Your task to perform on an android device: toggle data saver in the chrome app Image 0: 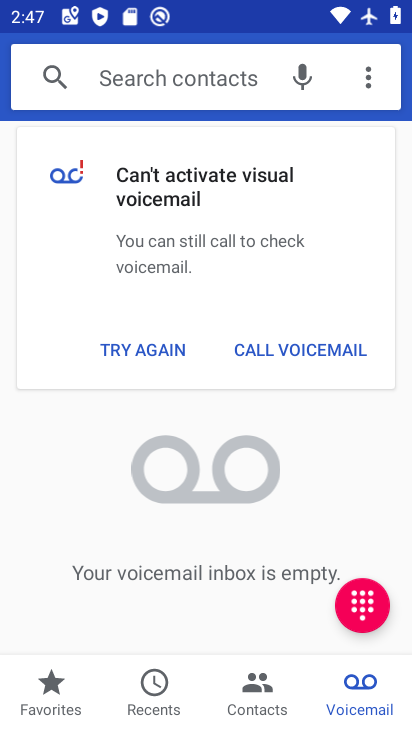
Step 0: press home button
Your task to perform on an android device: toggle data saver in the chrome app Image 1: 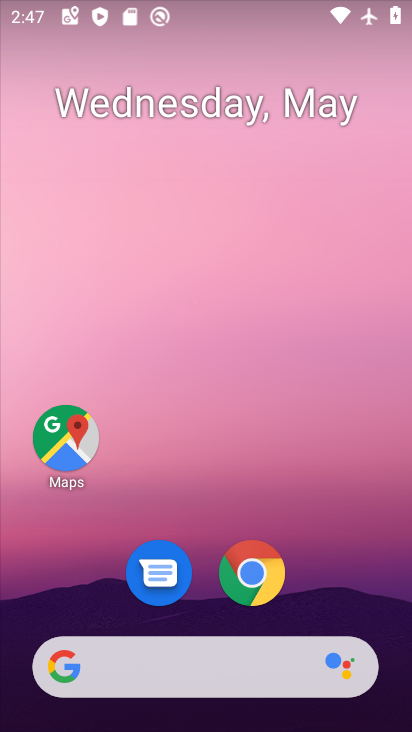
Step 1: click (242, 579)
Your task to perform on an android device: toggle data saver in the chrome app Image 2: 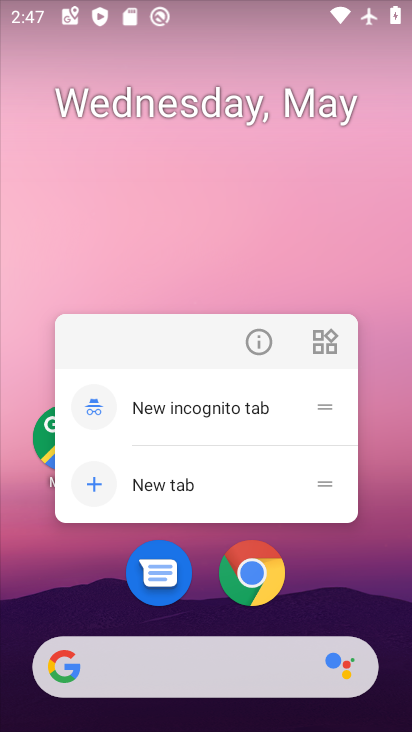
Step 2: click (248, 567)
Your task to perform on an android device: toggle data saver in the chrome app Image 3: 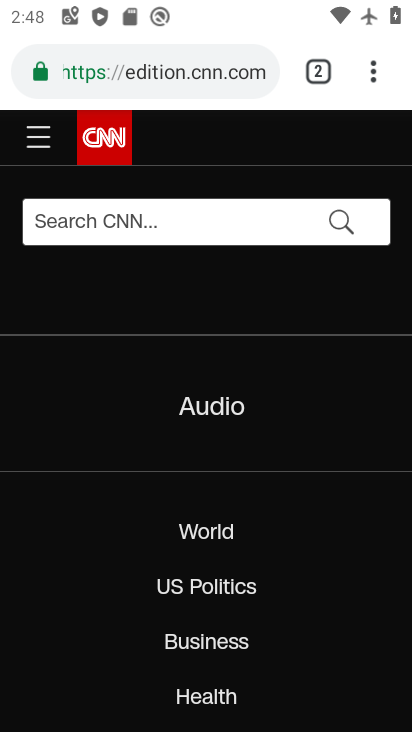
Step 3: click (379, 64)
Your task to perform on an android device: toggle data saver in the chrome app Image 4: 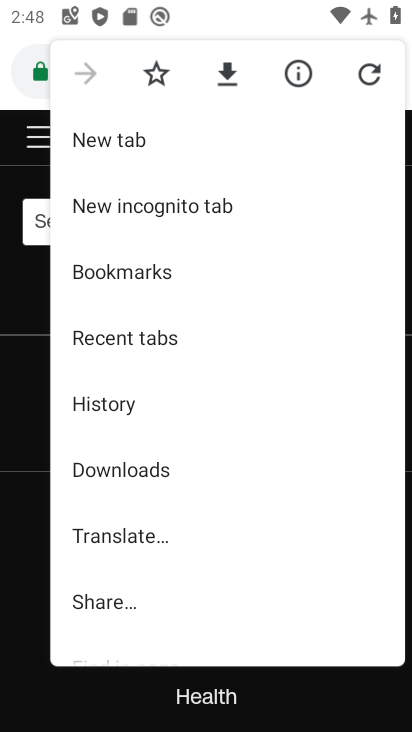
Step 4: drag from (222, 602) to (212, 200)
Your task to perform on an android device: toggle data saver in the chrome app Image 5: 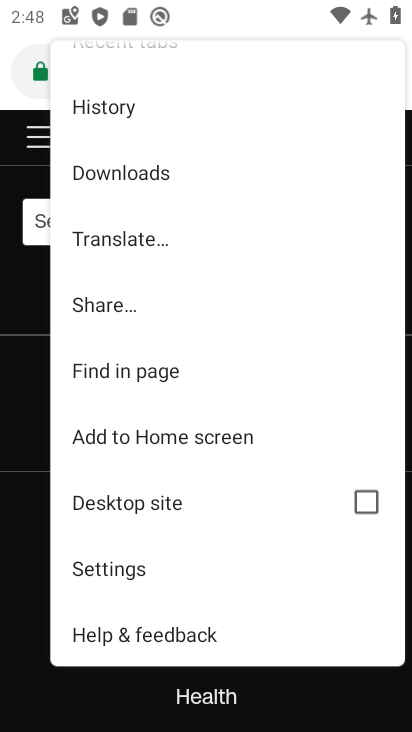
Step 5: click (130, 571)
Your task to perform on an android device: toggle data saver in the chrome app Image 6: 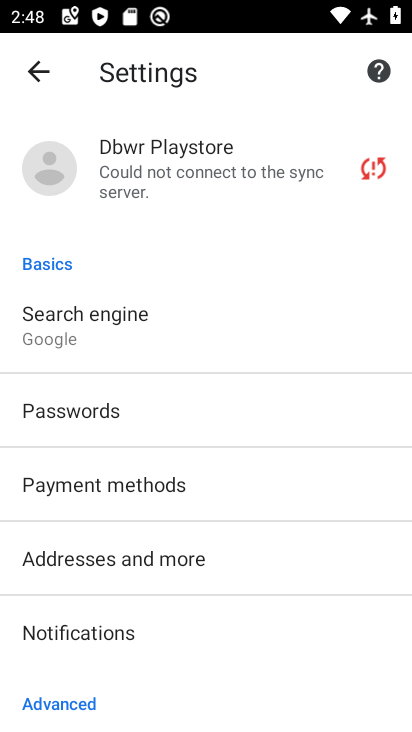
Step 6: drag from (153, 660) to (227, 243)
Your task to perform on an android device: toggle data saver in the chrome app Image 7: 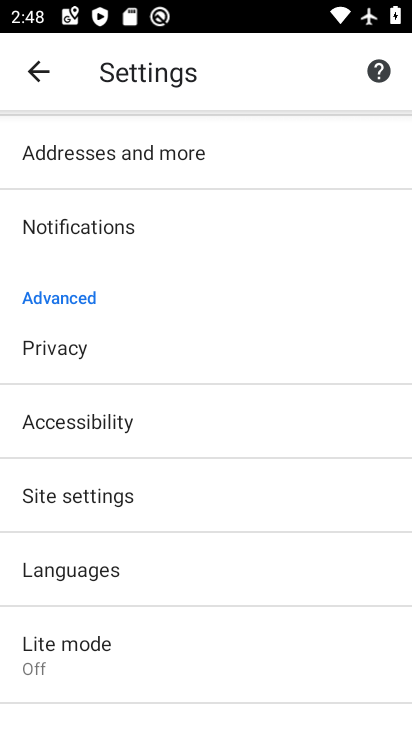
Step 7: click (121, 637)
Your task to perform on an android device: toggle data saver in the chrome app Image 8: 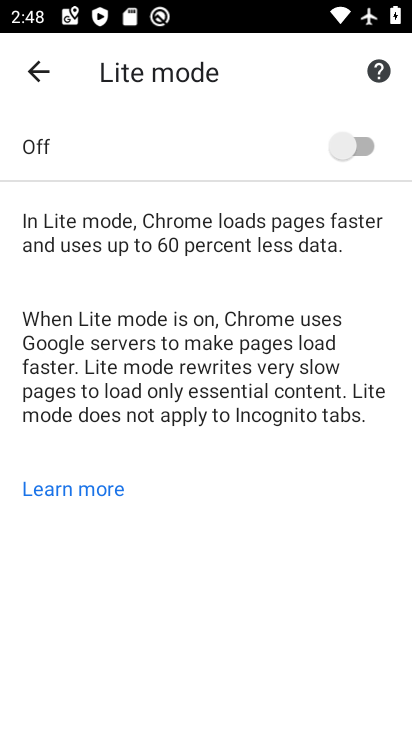
Step 8: click (369, 136)
Your task to perform on an android device: toggle data saver in the chrome app Image 9: 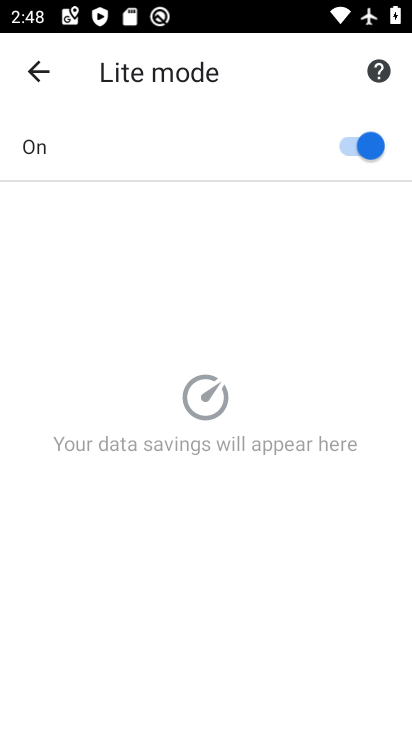
Step 9: task complete